Your task to perform on an android device: delete the emails in spam in the gmail app Image 0: 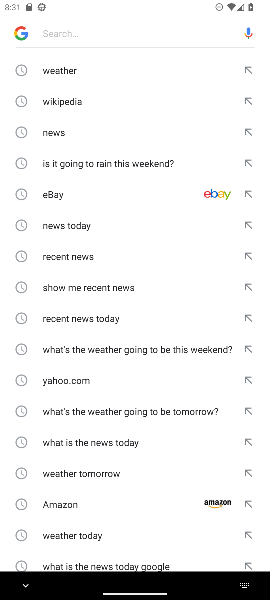
Step 0: press back button
Your task to perform on an android device: delete the emails in spam in the gmail app Image 1: 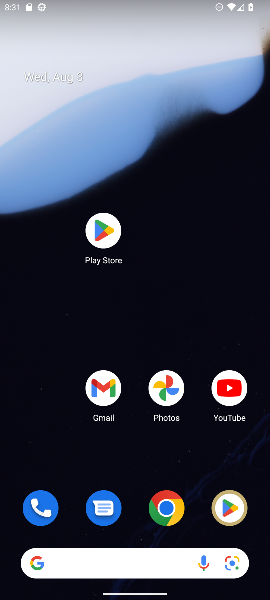
Step 1: drag from (146, 535) to (100, 134)
Your task to perform on an android device: delete the emails in spam in the gmail app Image 2: 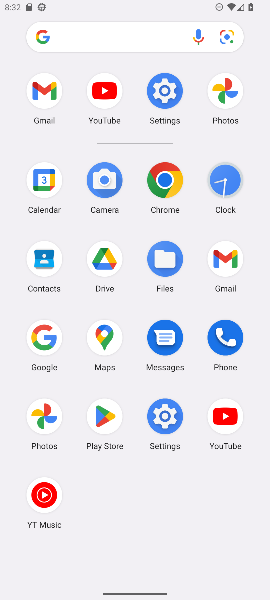
Step 2: click (46, 91)
Your task to perform on an android device: delete the emails in spam in the gmail app Image 3: 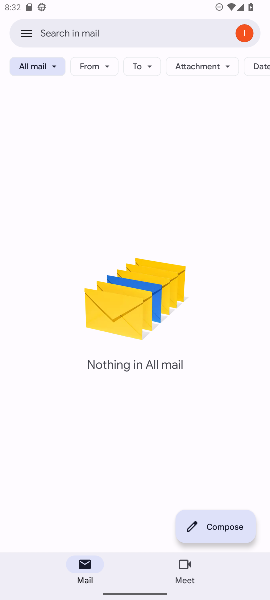
Step 3: click (23, 28)
Your task to perform on an android device: delete the emails in spam in the gmail app Image 4: 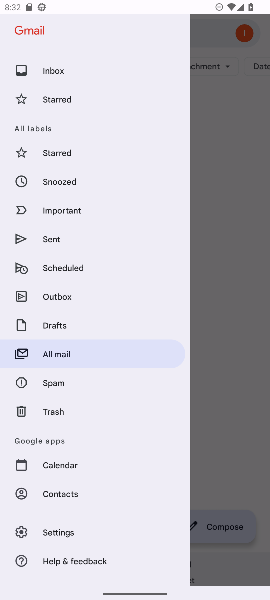
Step 4: click (51, 377)
Your task to perform on an android device: delete the emails in spam in the gmail app Image 5: 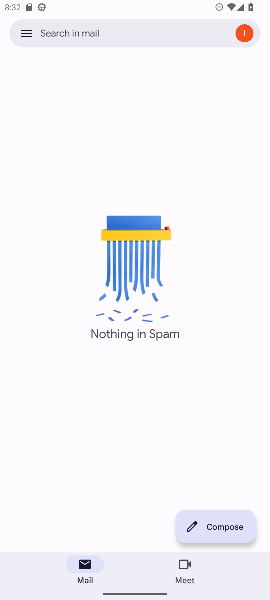
Step 5: task complete